Your task to perform on an android device: Go to Android settings Image 0: 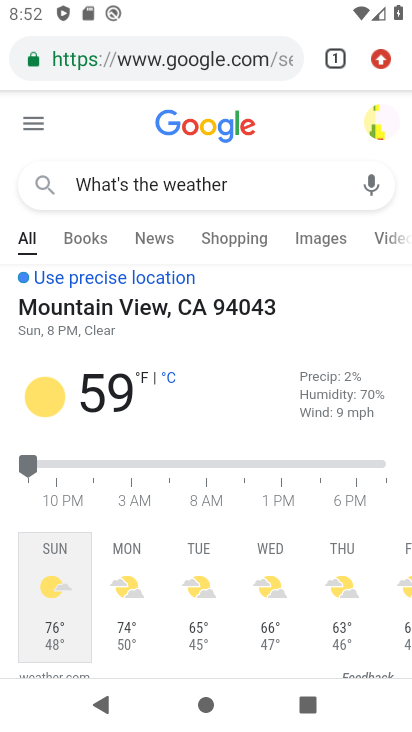
Step 0: press home button
Your task to perform on an android device: Go to Android settings Image 1: 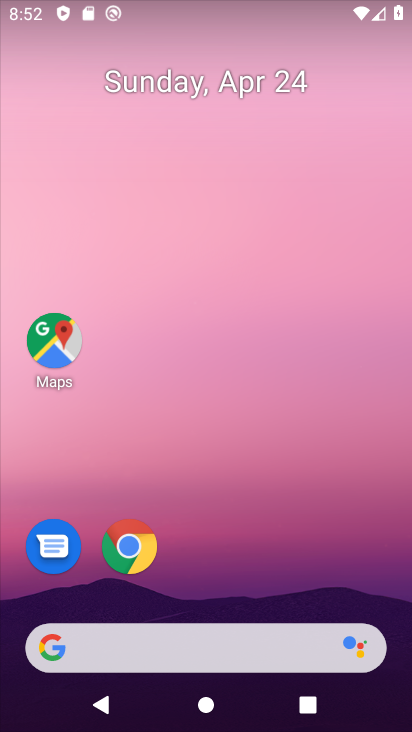
Step 1: drag from (217, 593) to (249, 289)
Your task to perform on an android device: Go to Android settings Image 2: 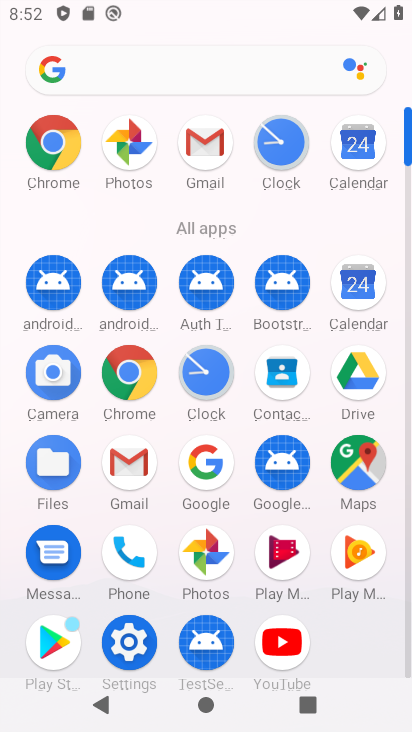
Step 2: click (120, 637)
Your task to perform on an android device: Go to Android settings Image 3: 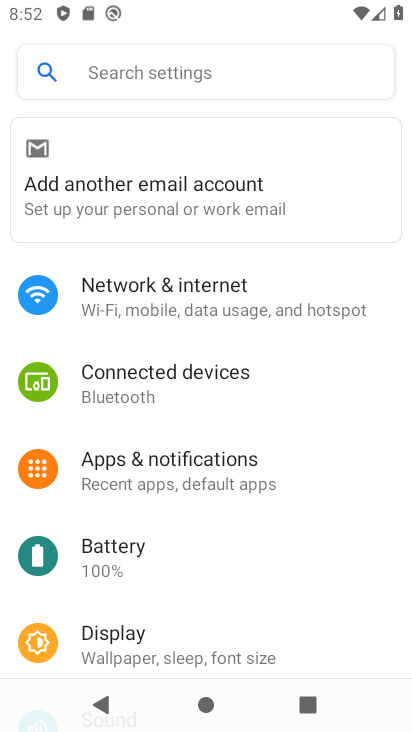
Step 3: click (183, 62)
Your task to perform on an android device: Go to Android settings Image 4: 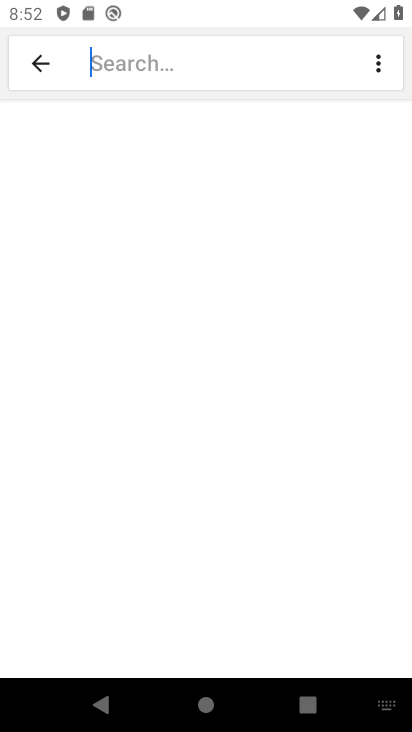
Step 4: type "Android settings"
Your task to perform on an android device: Go to Android settings Image 5: 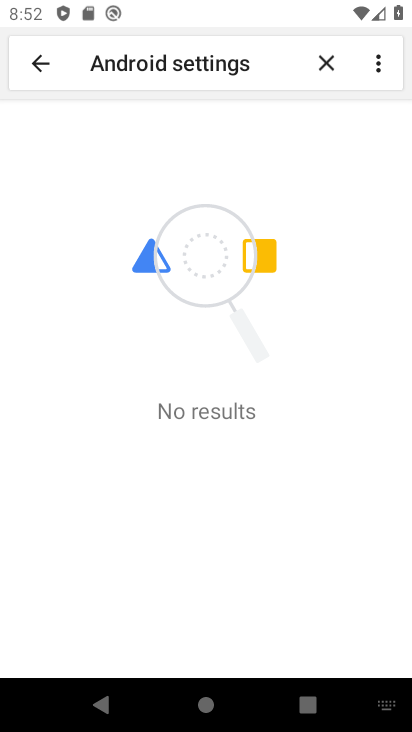
Step 5: click (321, 61)
Your task to perform on an android device: Go to Android settings Image 6: 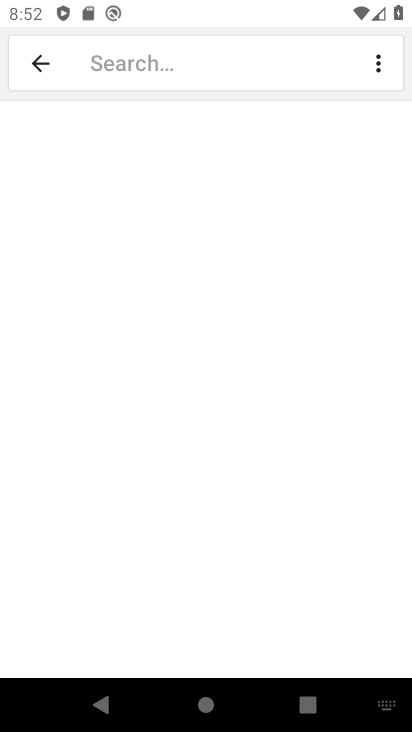
Step 6: click (30, 63)
Your task to perform on an android device: Go to Android settings Image 7: 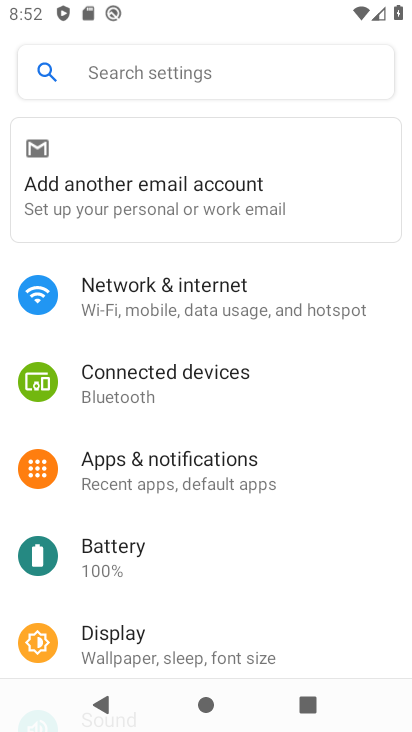
Step 7: drag from (217, 622) to (323, 20)
Your task to perform on an android device: Go to Android settings Image 8: 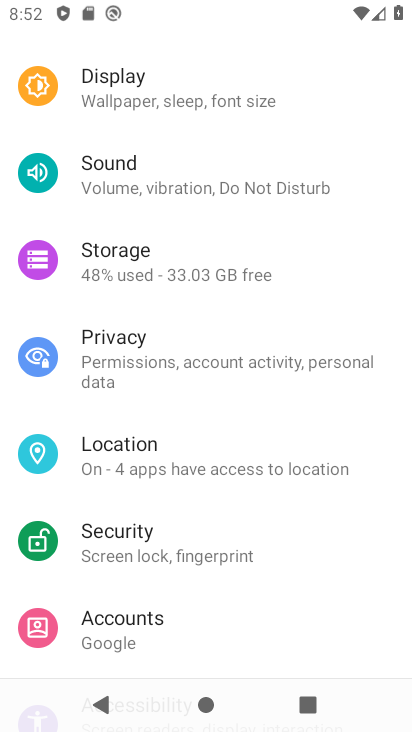
Step 8: drag from (193, 607) to (304, 46)
Your task to perform on an android device: Go to Android settings Image 9: 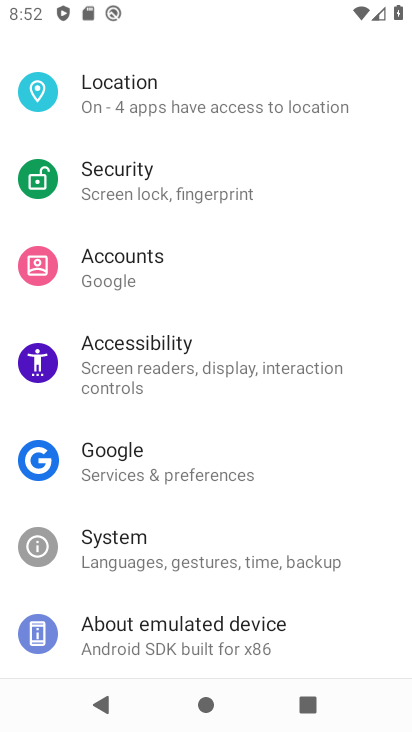
Step 9: click (154, 634)
Your task to perform on an android device: Go to Android settings Image 10: 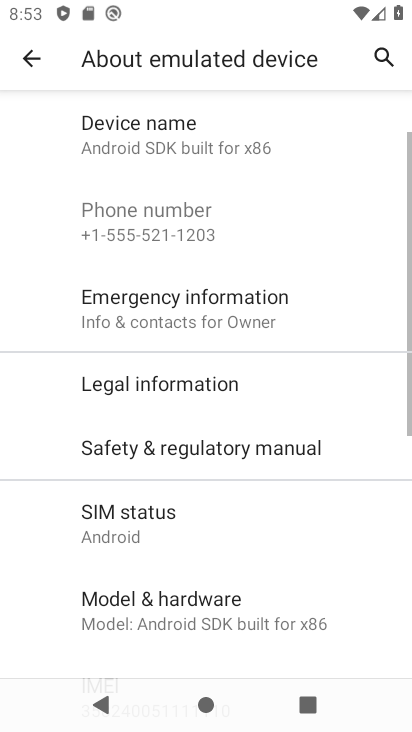
Step 10: drag from (234, 552) to (324, 68)
Your task to perform on an android device: Go to Android settings Image 11: 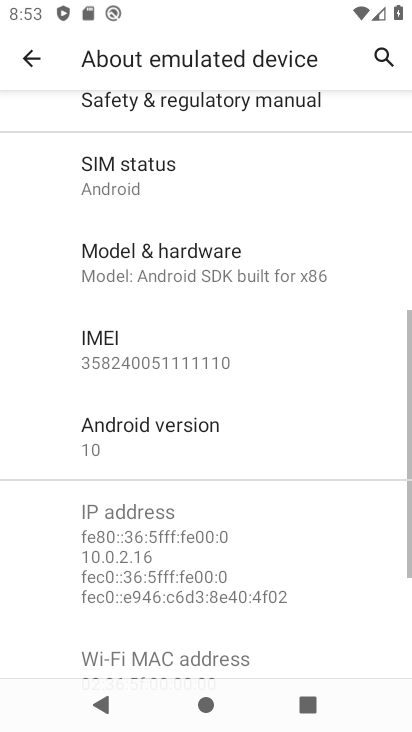
Step 11: click (218, 435)
Your task to perform on an android device: Go to Android settings Image 12: 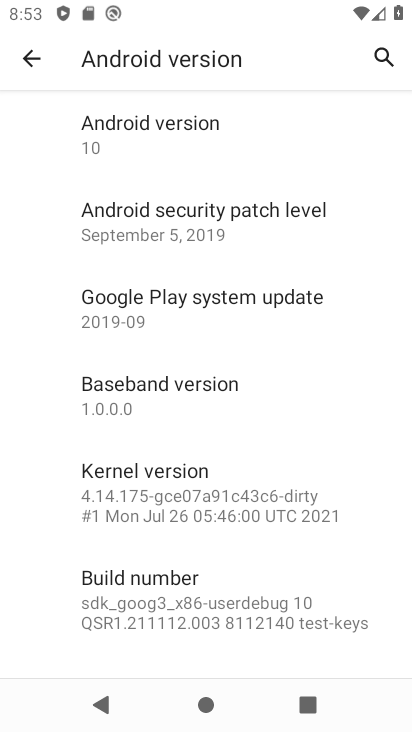
Step 12: task complete